Your task to perform on an android device: add a label to a message in the gmail app Image 0: 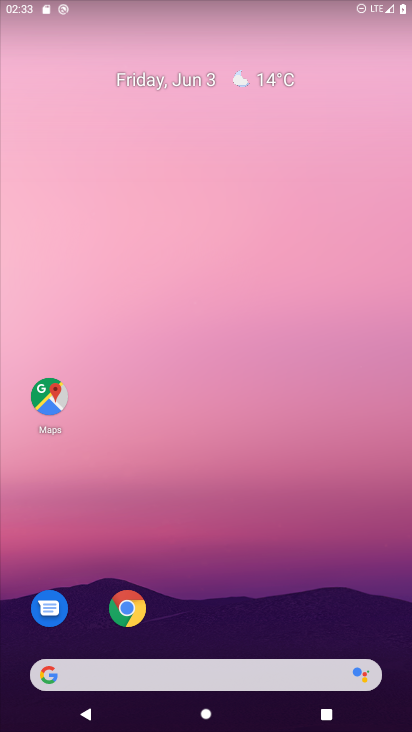
Step 0: drag from (235, 586) to (279, 124)
Your task to perform on an android device: add a label to a message in the gmail app Image 1: 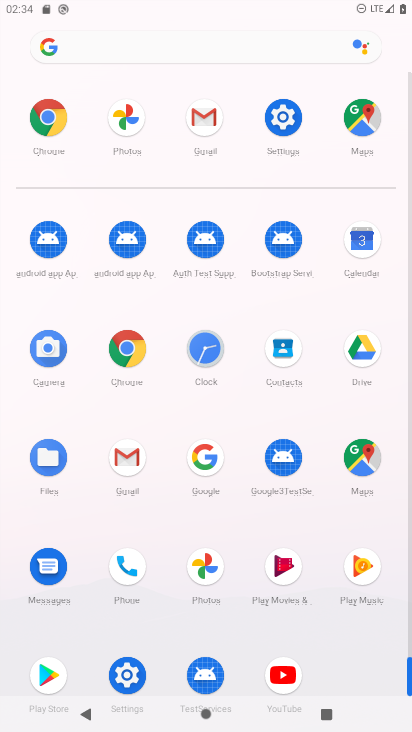
Step 1: click (124, 465)
Your task to perform on an android device: add a label to a message in the gmail app Image 2: 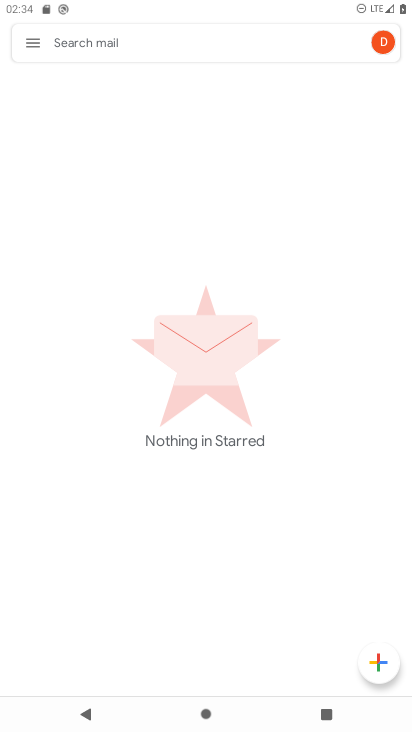
Step 2: click (37, 37)
Your task to perform on an android device: add a label to a message in the gmail app Image 3: 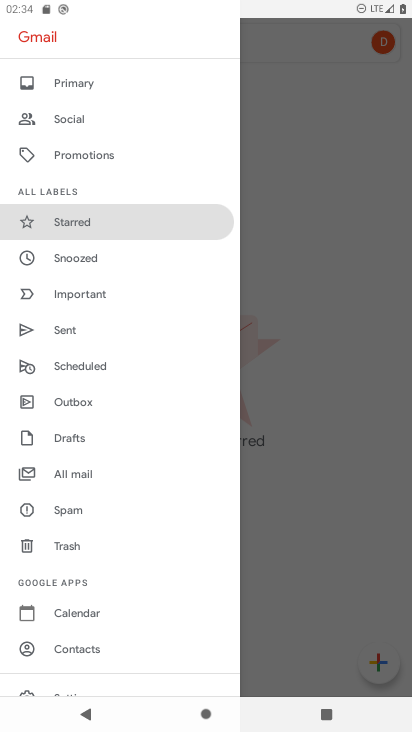
Step 3: click (85, 472)
Your task to perform on an android device: add a label to a message in the gmail app Image 4: 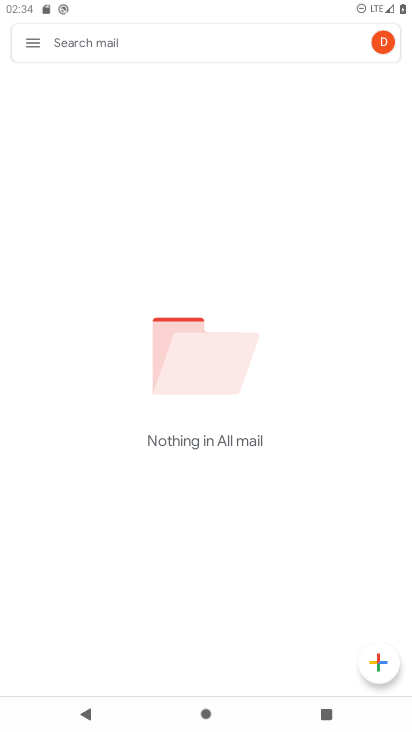
Step 4: task complete